Your task to perform on an android device: open app "Airtel Thanks" Image 0: 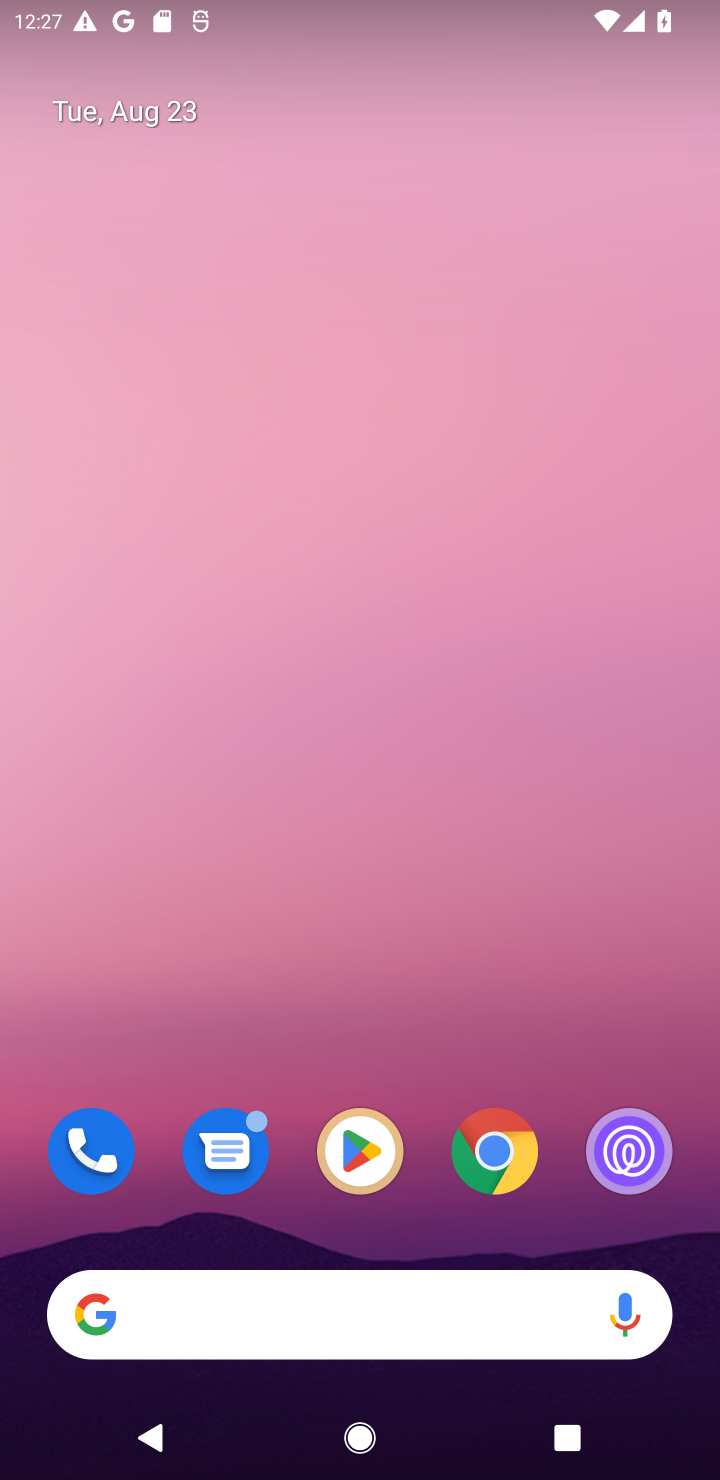
Step 0: click (351, 1133)
Your task to perform on an android device: open app "Airtel Thanks" Image 1: 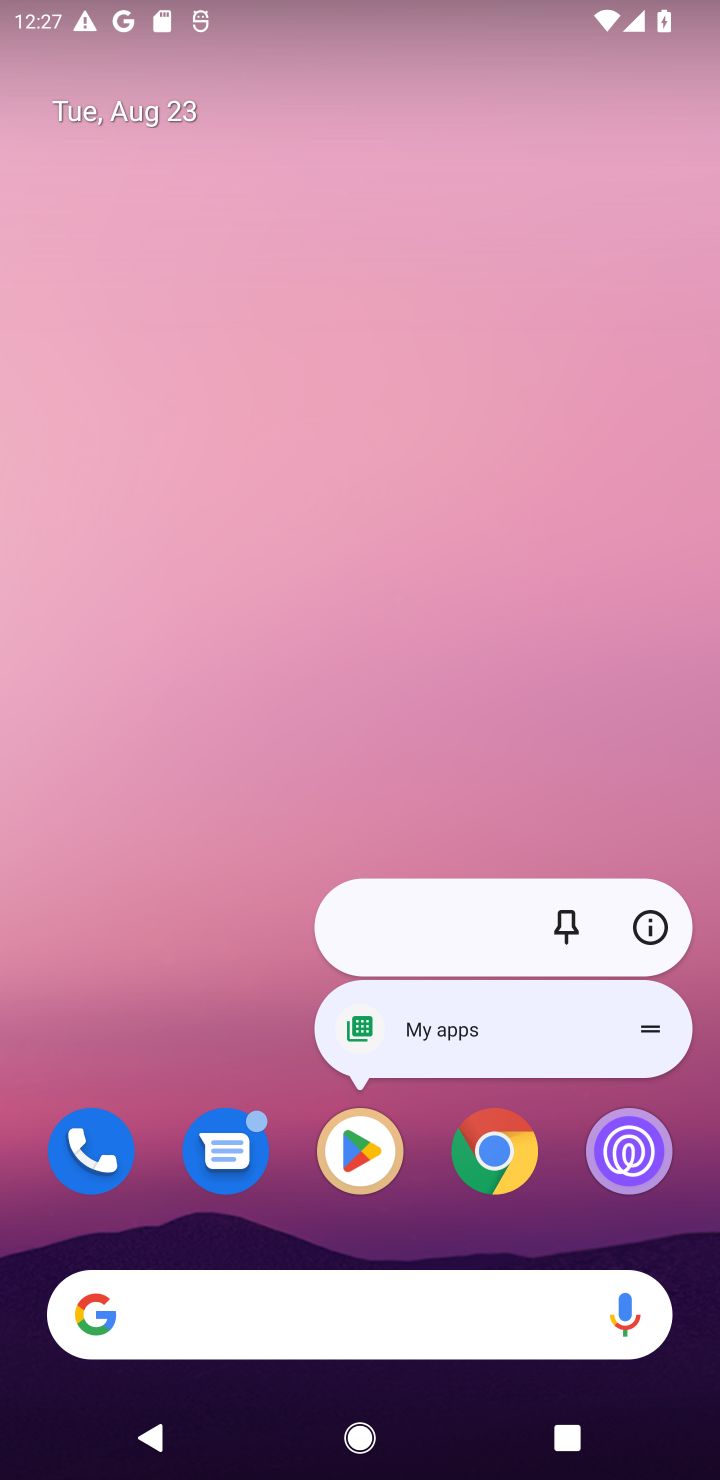
Step 1: click (351, 1133)
Your task to perform on an android device: open app "Airtel Thanks" Image 2: 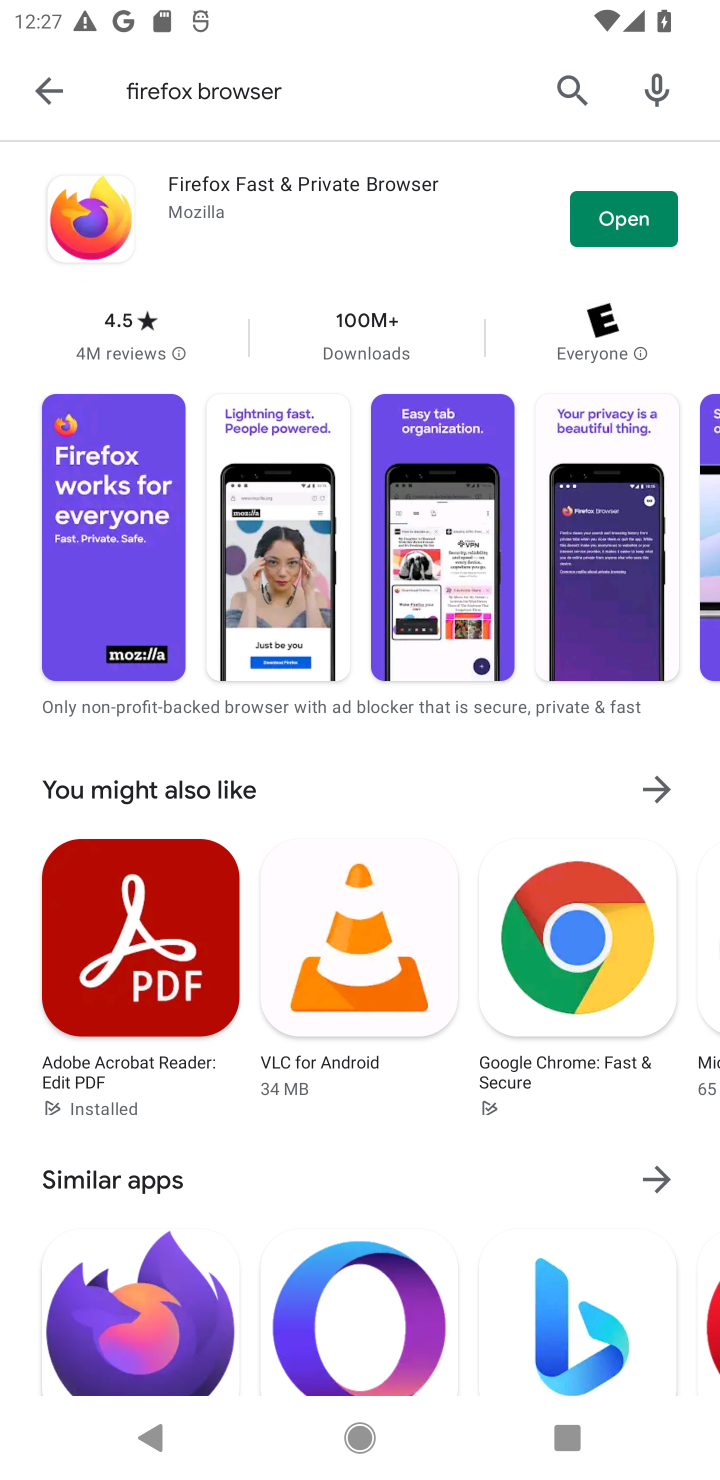
Step 2: click (621, 88)
Your task to perform on an android device: open app "Airtel Thanks" Image 3: 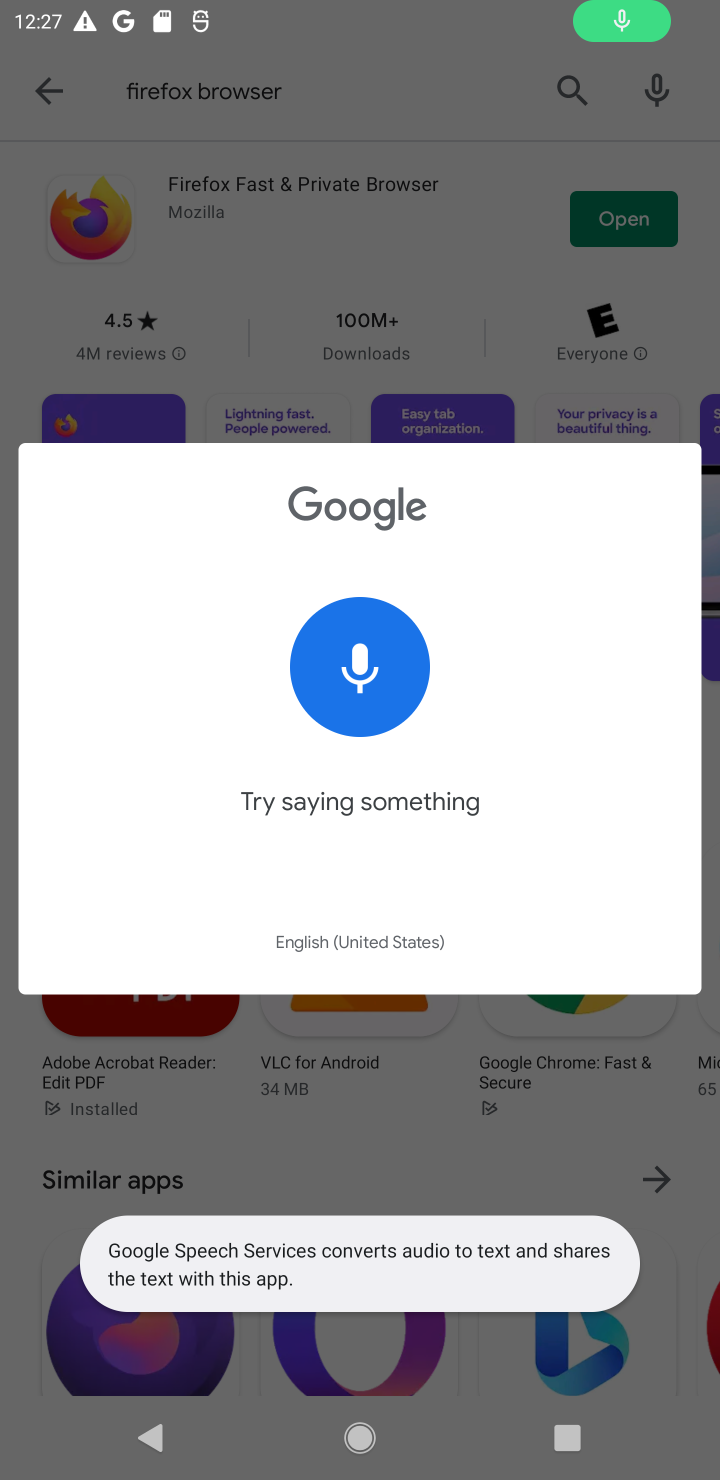
Step 3: click (581, 81)
Your task to perform on an android device: open app "Airtel Thanks" Image 4: 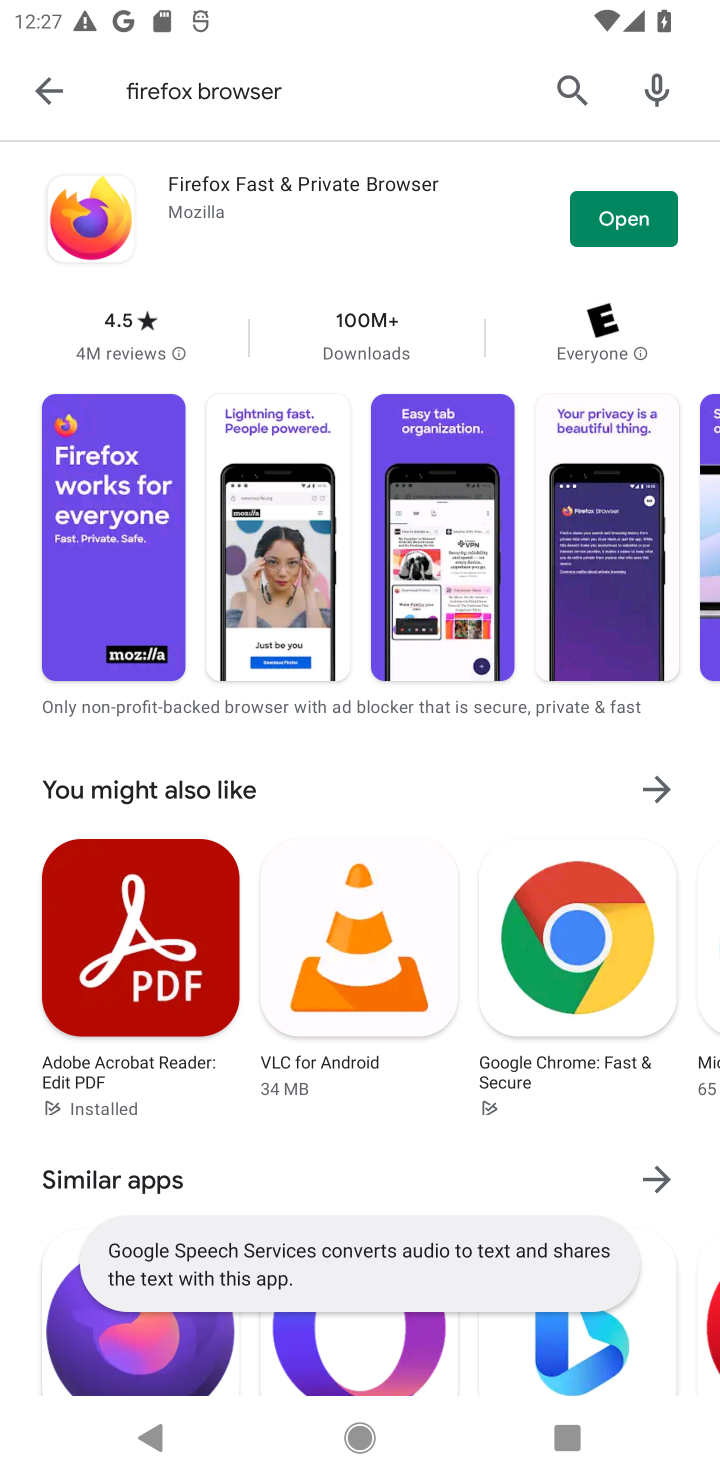
Step 4: click (581, 81)
Your task to perform on an android device: open app "Airtel Thanks" Image 5: 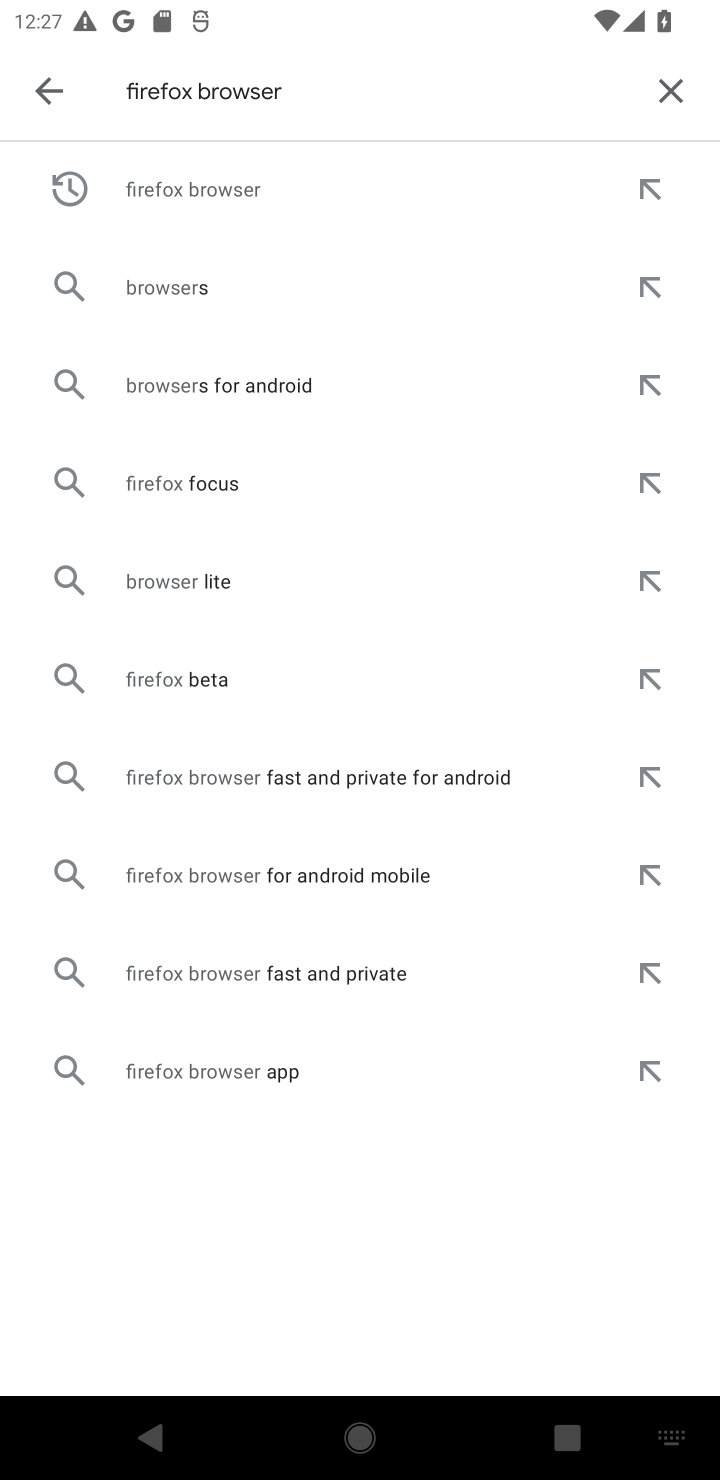
Step 5: click (658, 83)
Your task to perform on an android device: open app "Airtel Thanks" Image 6: 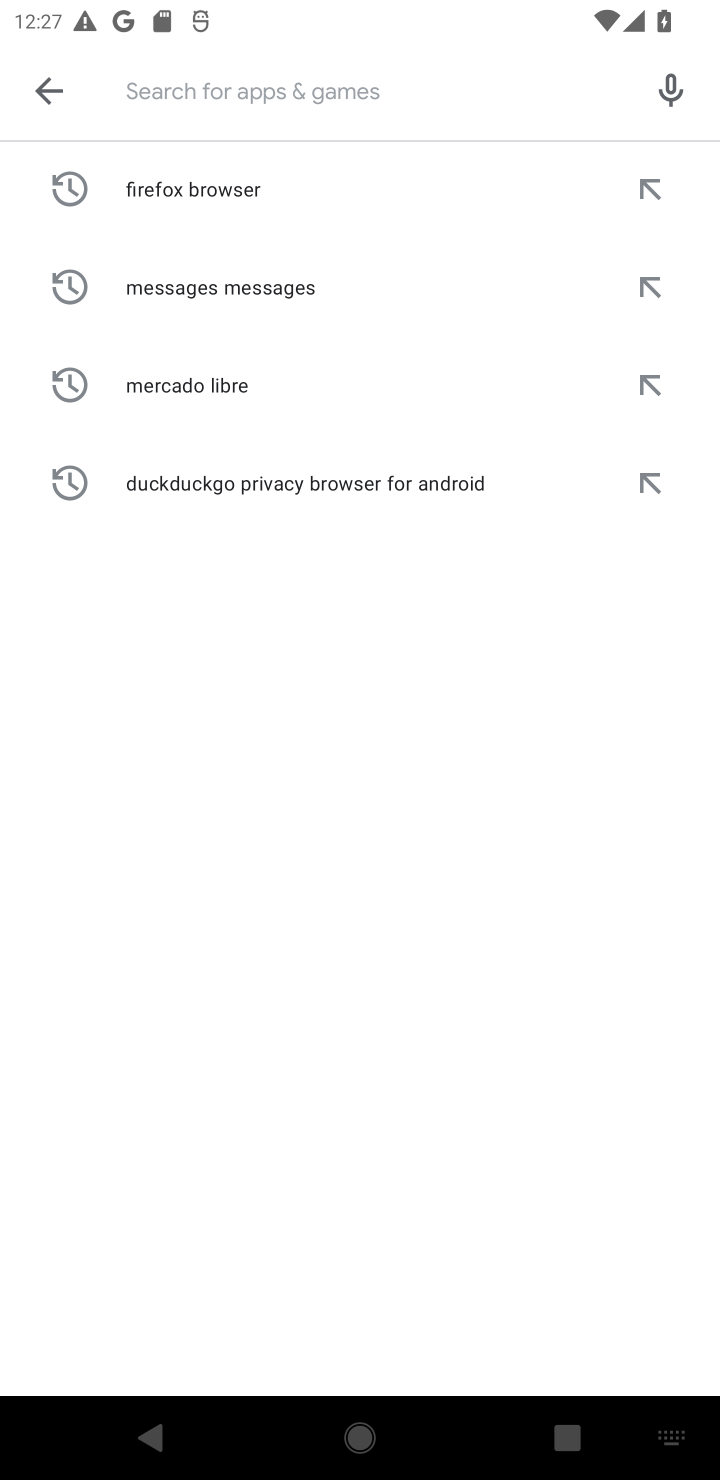
Step 6: type "Airtel Thanks"
Your task to perform on an android device: open app "Airtel Thanks" Image 7: 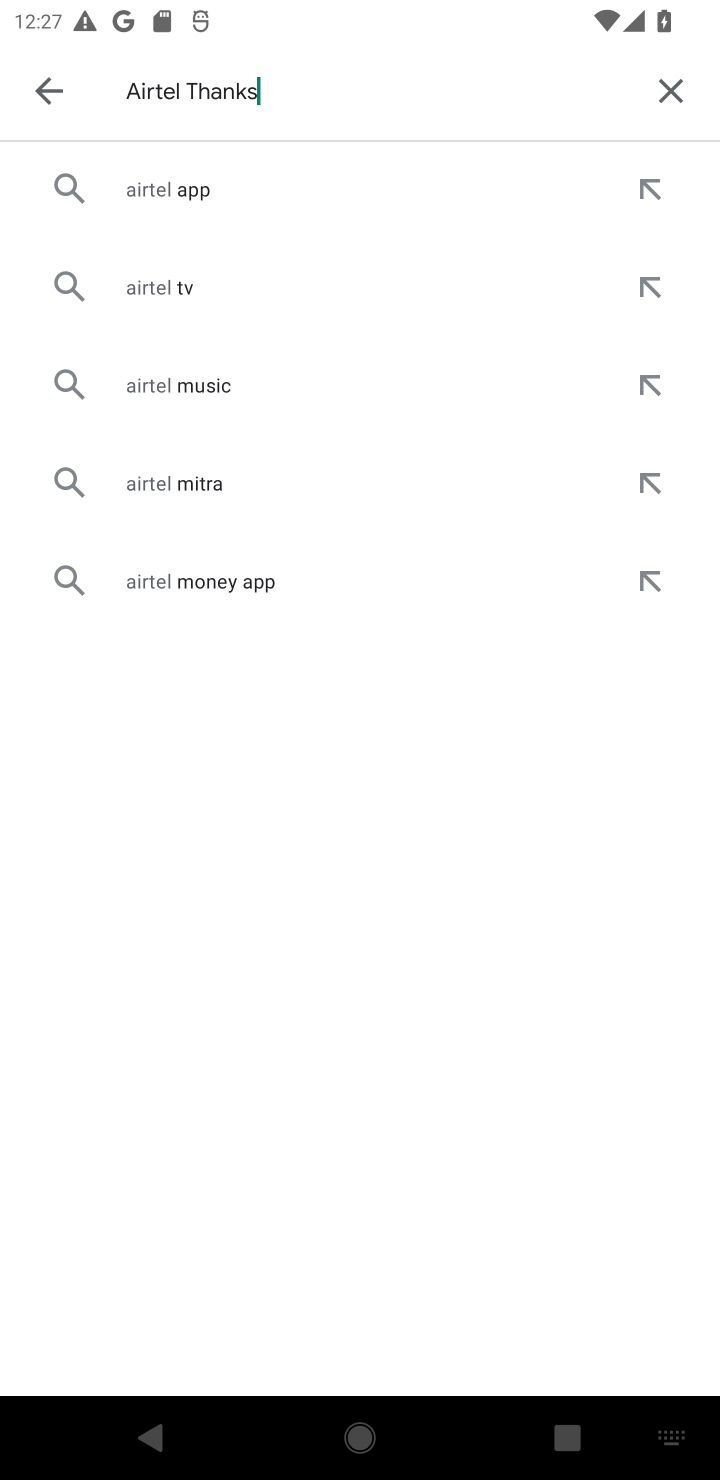
Step 7: type ""
Your task to perform on an android device: open app "Airtel Thanks" Image 8: 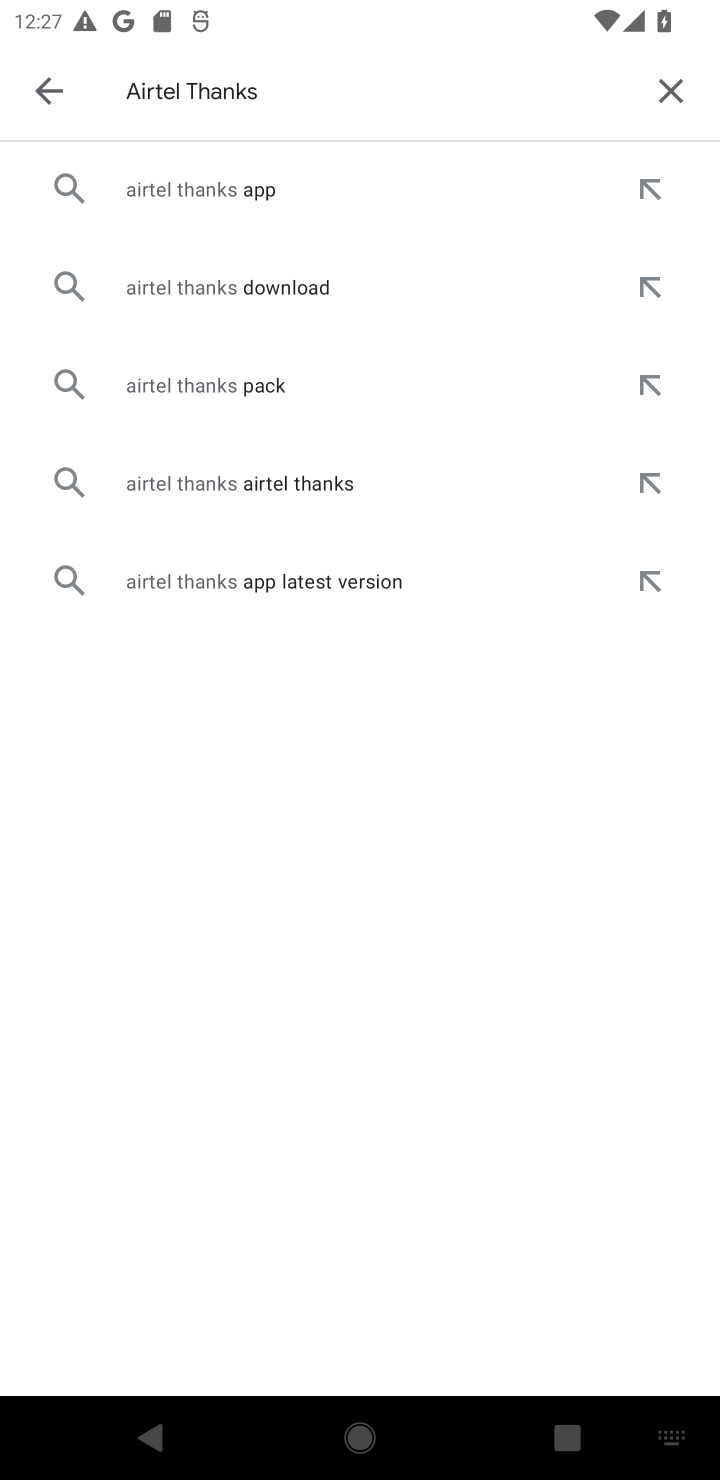
Step 8: click (262, 190)
Your task to perform on an android device: open app "Airtel Thanks" Image 9: 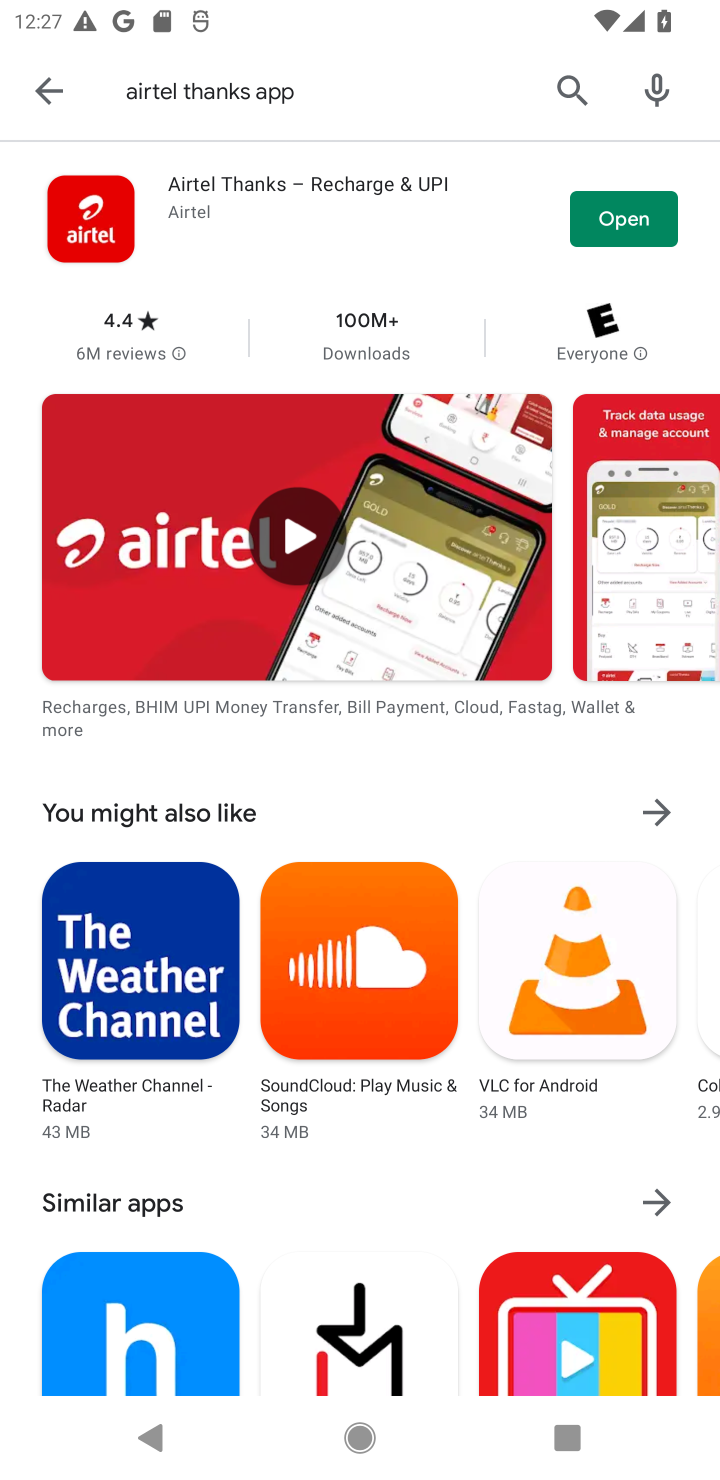
Step 9: click (625, 212)
Your task to perform on an android device: open app "Airtel Thanks" Image 10: 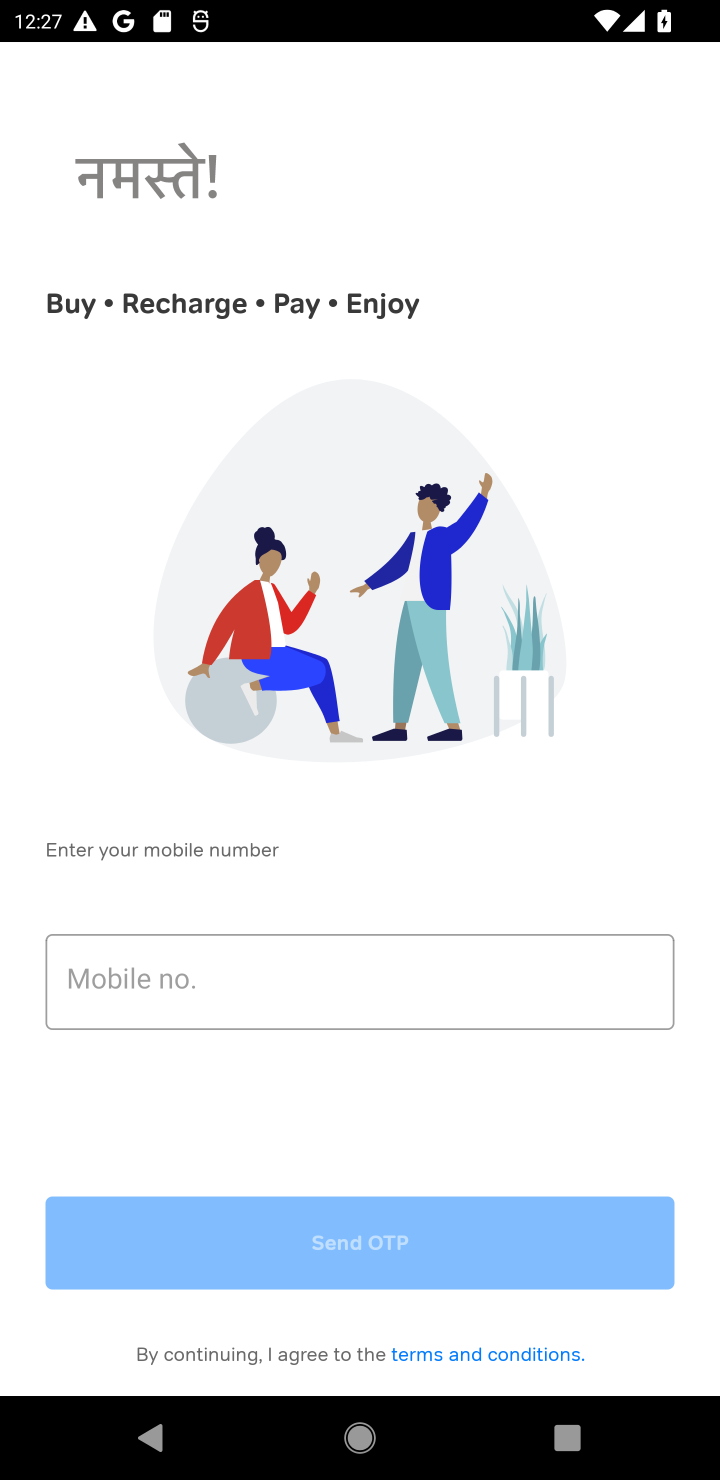
Step 10: task complete